Your task to perform on an android device: Go to Yahoo.com Image 0: 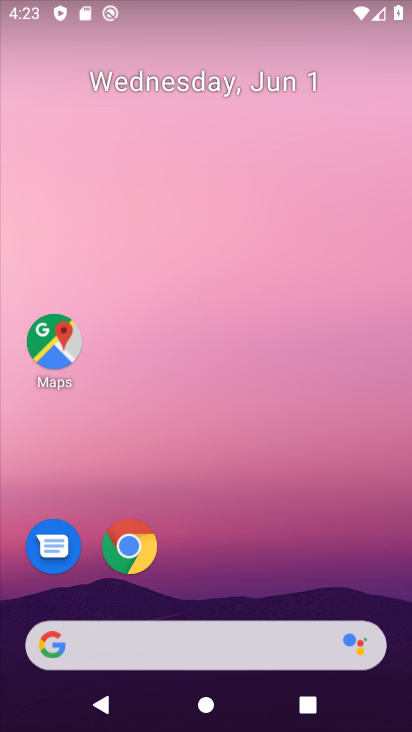
Step 0: drag from (285, 532) to (225, 14)
Your task to perform on an android device: Go to Yahoo.com Image 1: 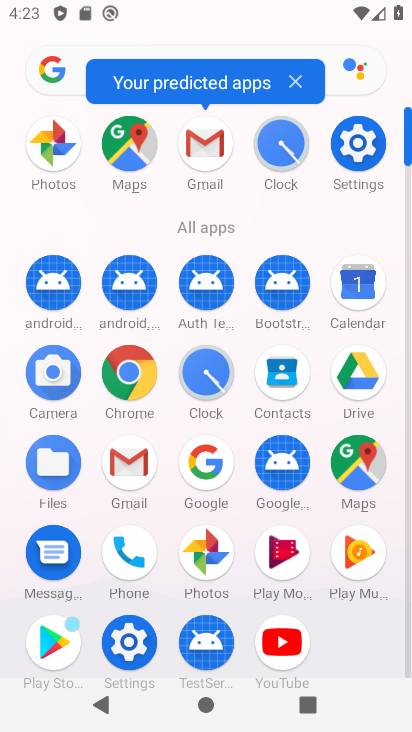
Step 1: drag from (8, 540) to (16, 259)
Your task to perform on an android device: Go to Yahoo.com Image 2: 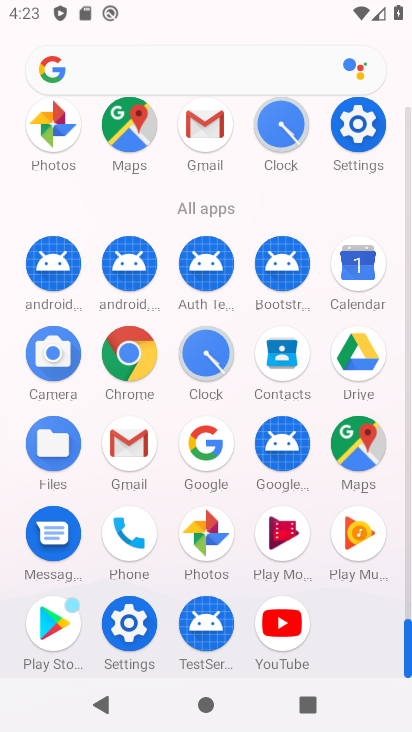
Step 2: click (126, 354)
Your task to perform on an android device: Go to Yahoo.com Image 3: 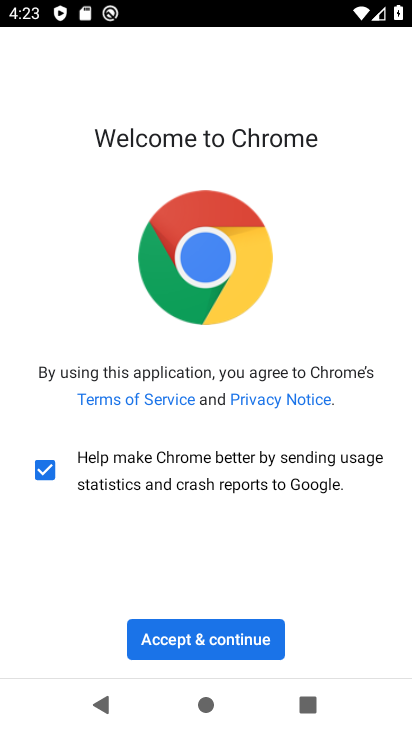
Step 3: click (208, 636)
Your task to perform on an android device: Go to Yahoo.com Image 4: 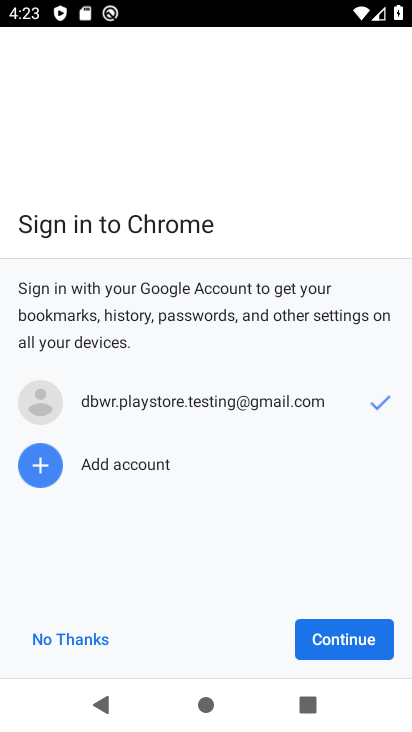
Step 4: click (318, 625)
Your task to perform on an android device: Go to Yahoo.com Image 5: 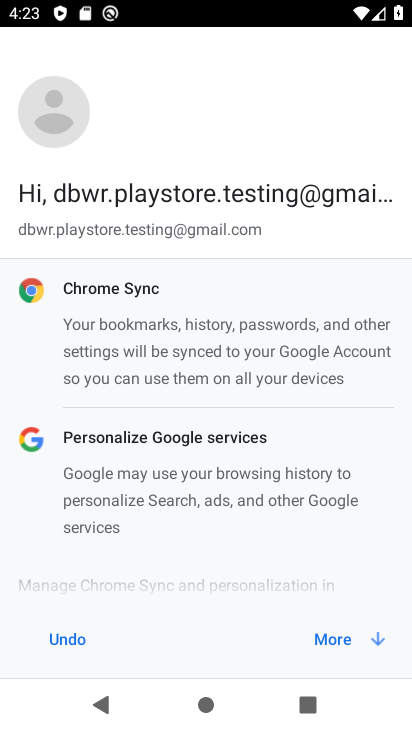
Step 5: click (315, 640)
Your task to perform on an android device: Go to Yahoo.com Image 6: 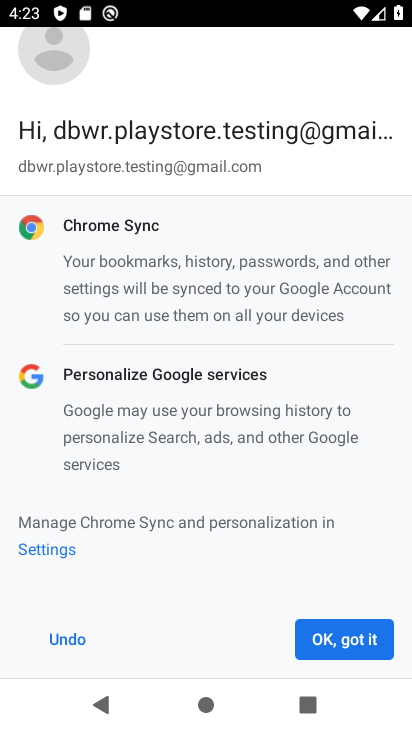
Step 6: click (315, 640)
Your task to perform on an android device: Go to Yahoo.com Image 7: 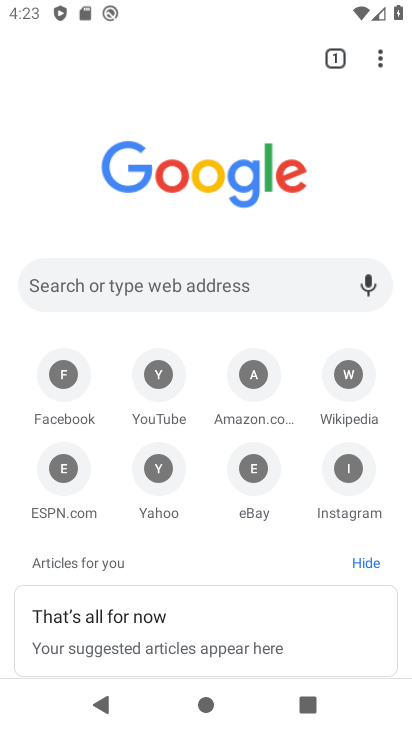
Step 7: click (227, 290)
Your task to perform on an android device: Go to Yahoo.com Image 8: 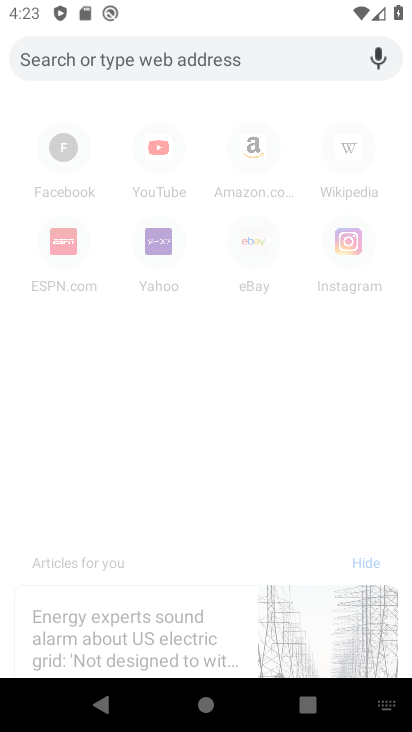
Step 8: type " Yahoo.com"
Your task to perform on an android device: Go to Yahoo.com Image 9: 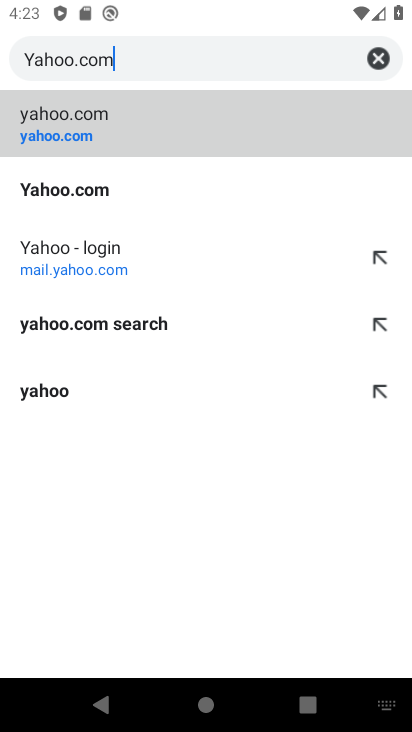
Step 9: type ""
Your task to perform on an android device: Go to Yahoo.com Image 10: 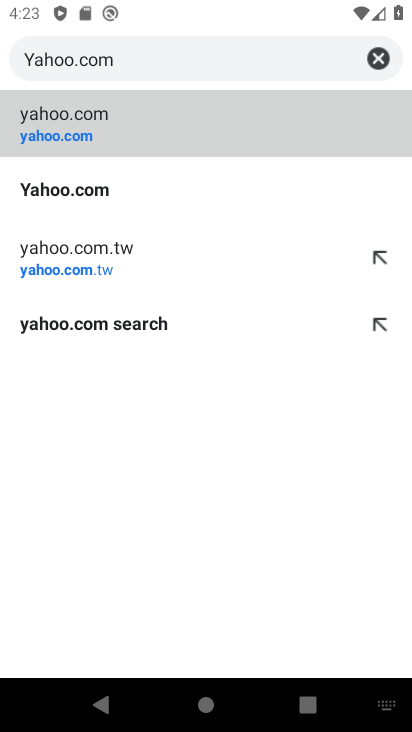
Step 10: click (171, 137)
Your task to perform on an android device: Go to Yahoo.com Image 11: 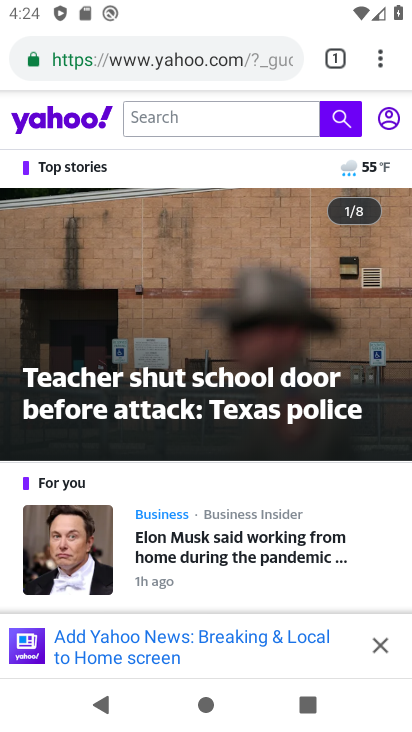
Step 11: task complete